Your task to perform on an android device: turn on the 24-hour format for clock Image 0: 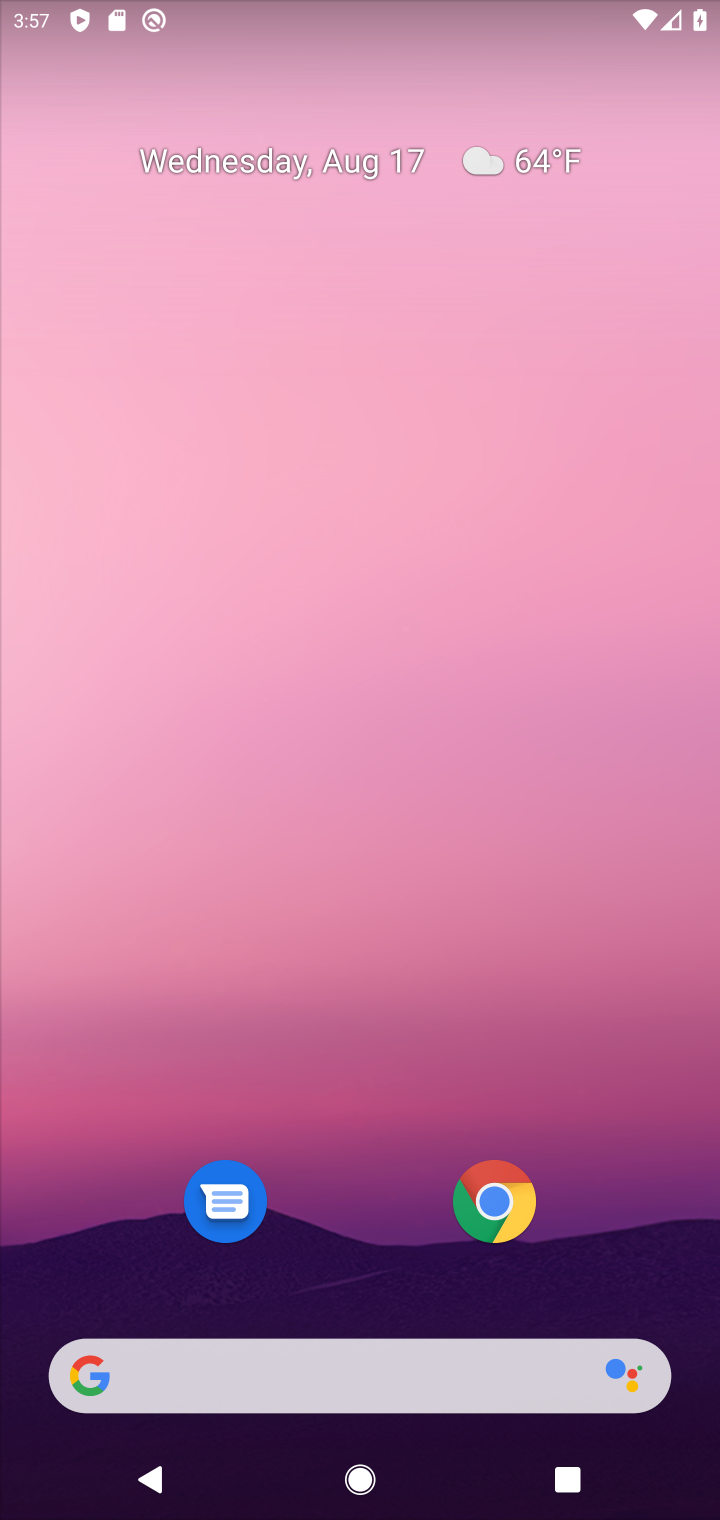
Step 0: drag from (330, 1284) to (377, 3)
Your task to perform on an android device: turn on the 24-hour format for clock Image 1: 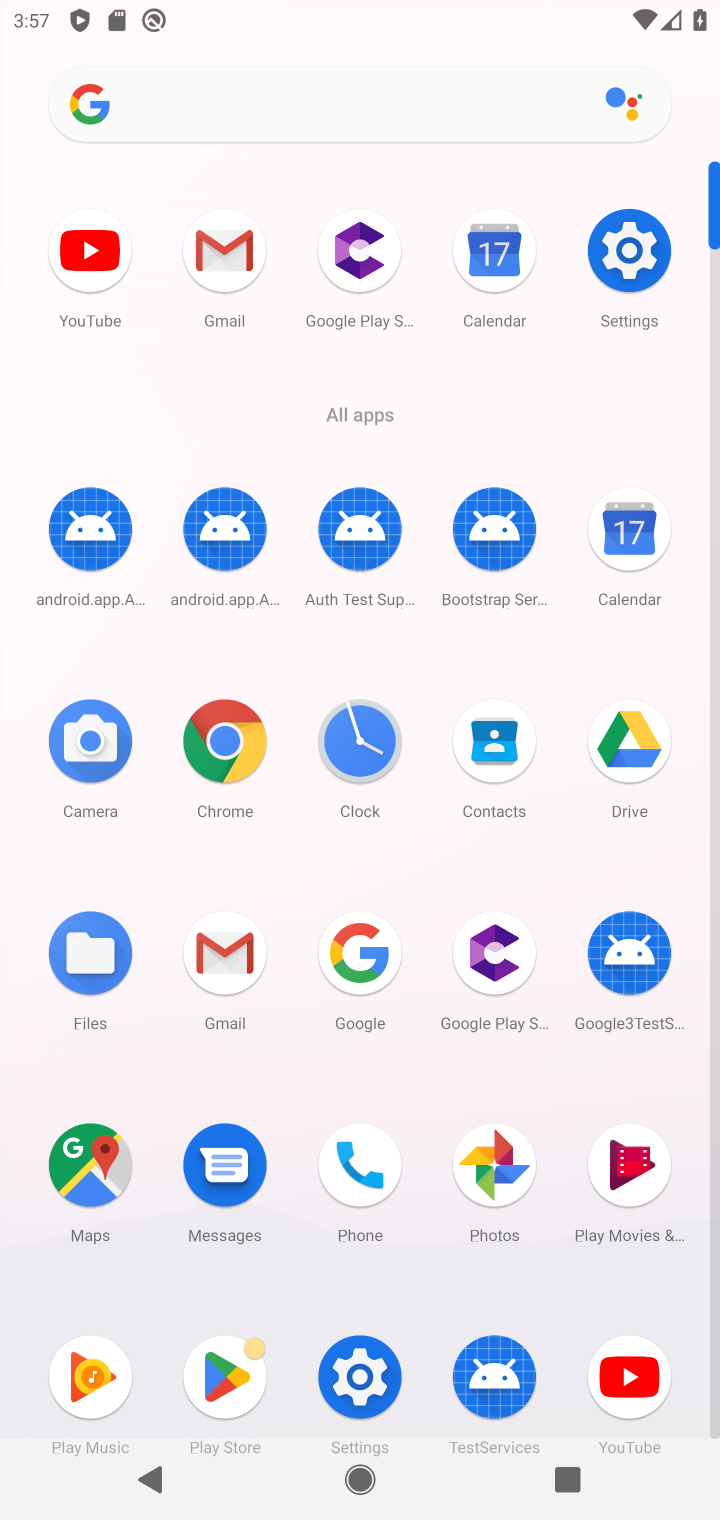
Step 1: click (363, 1373)
Your task to perform on an android device: turn on the 24-hour format for clock Image 2: 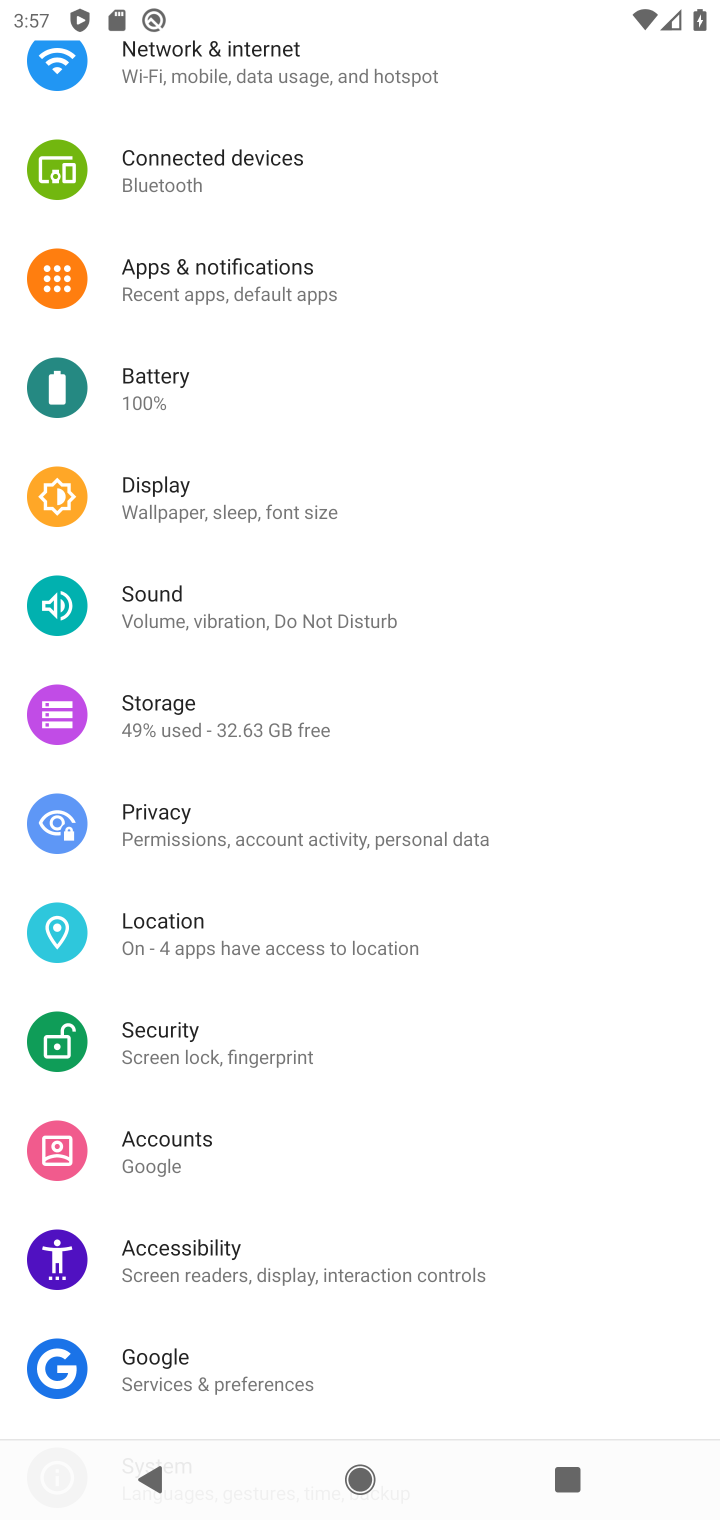
Step 2: drag from (257, 1176) to (263, 678)
Your task to perform on an android device: turn on the 24-hour format for clock Image 3: 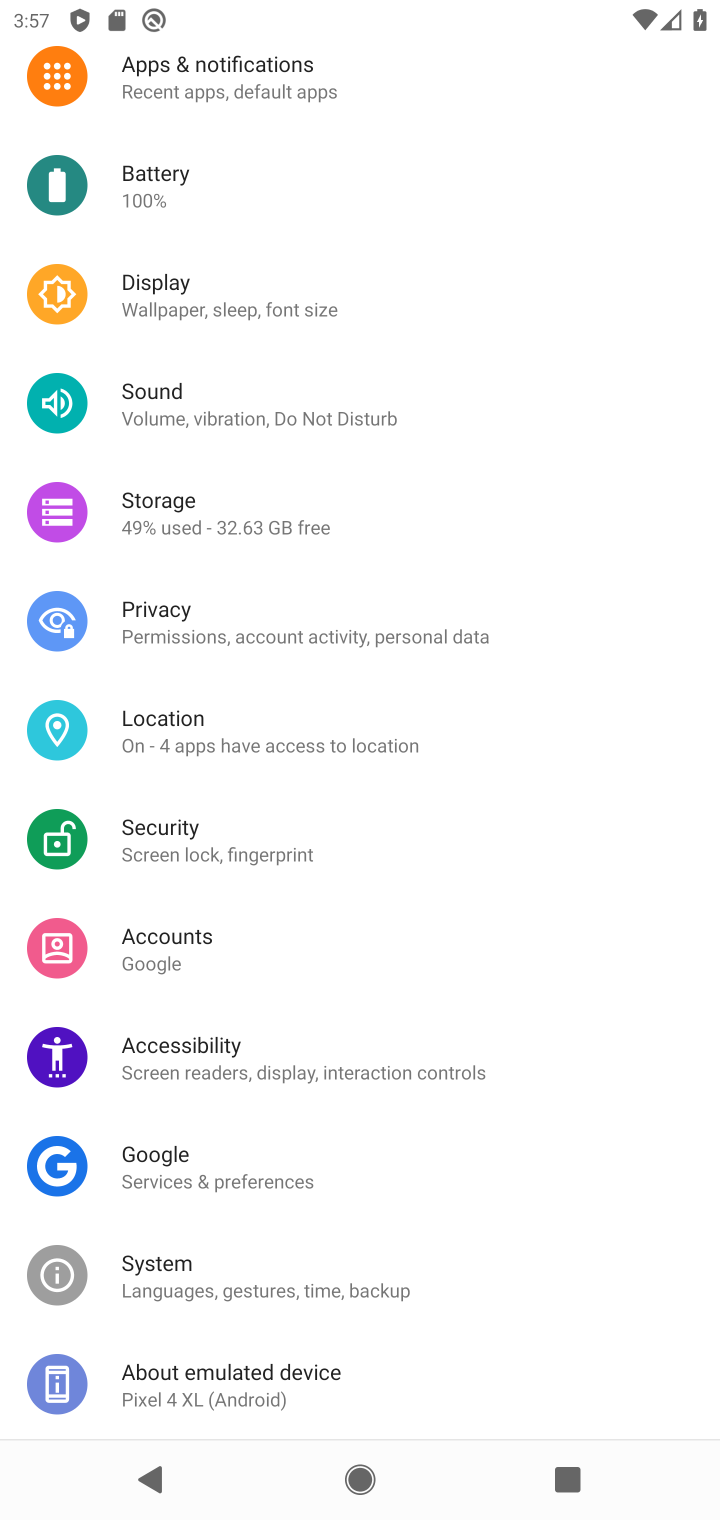
Step 3: click (218, 1279)
Your task to perform on an android device: turn on the 24-hour format for clock Image 4: 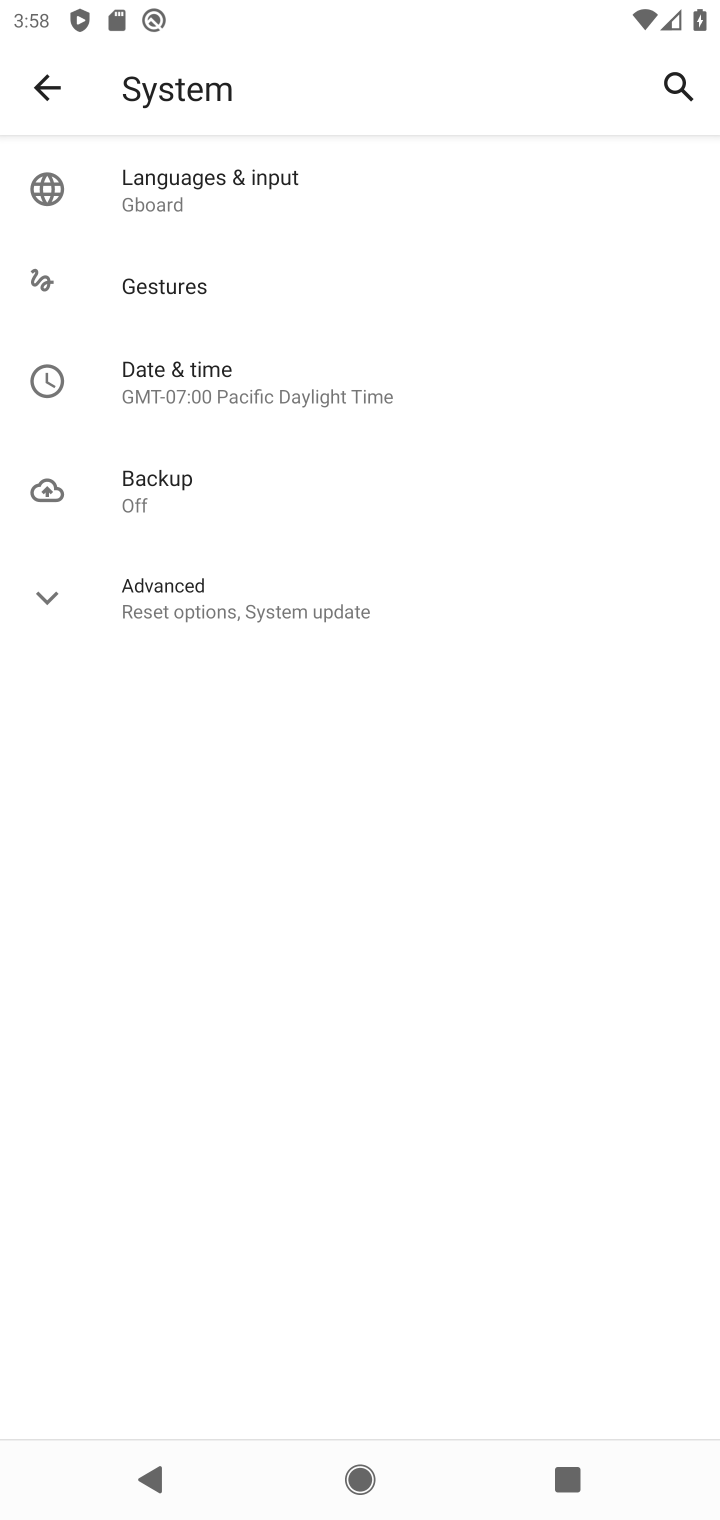
Step 4: click (200, 393)
Your task to perform on an android device: turn on the 24-hour format for clock Image 5: 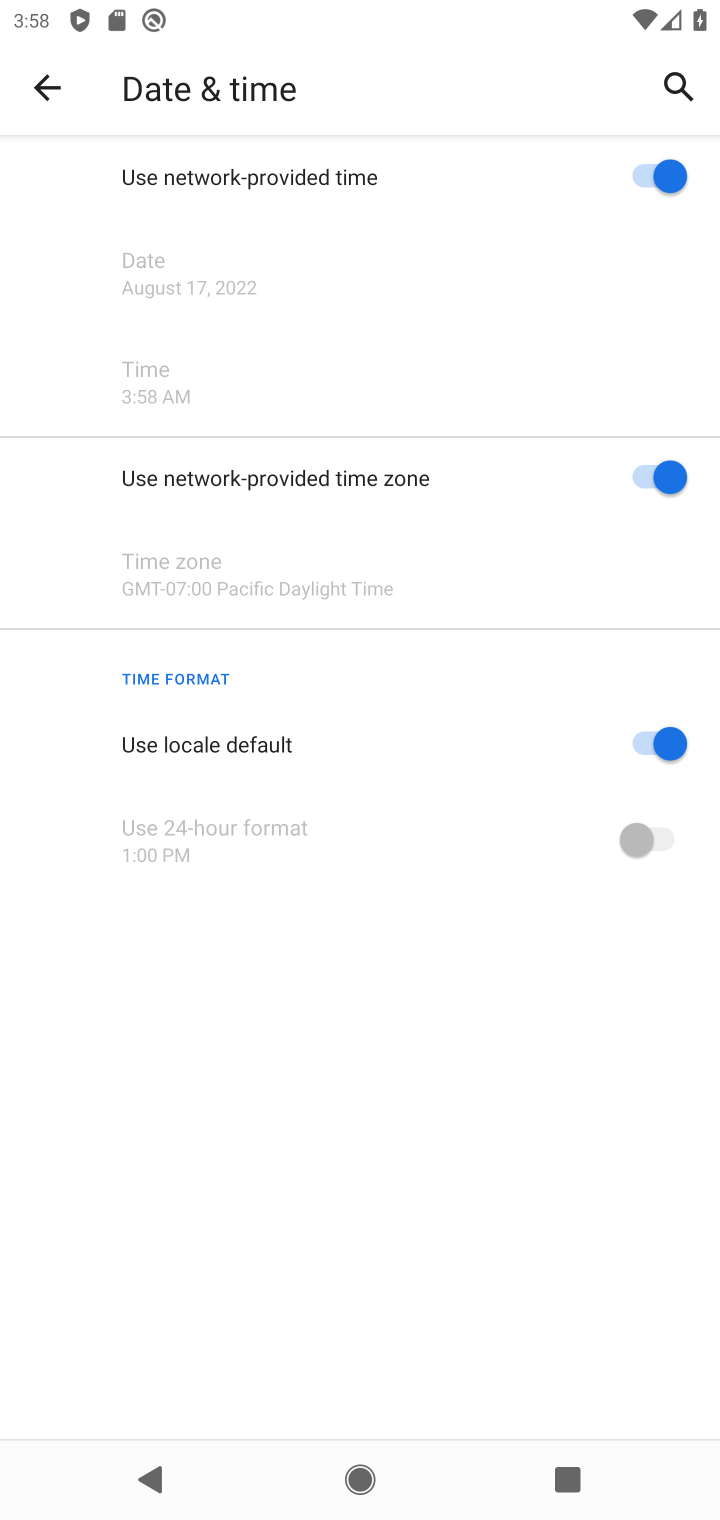
Step 5: click (599, 728)
Your task to perform on an android device: turn on the 24-hour format for clock Image 6: 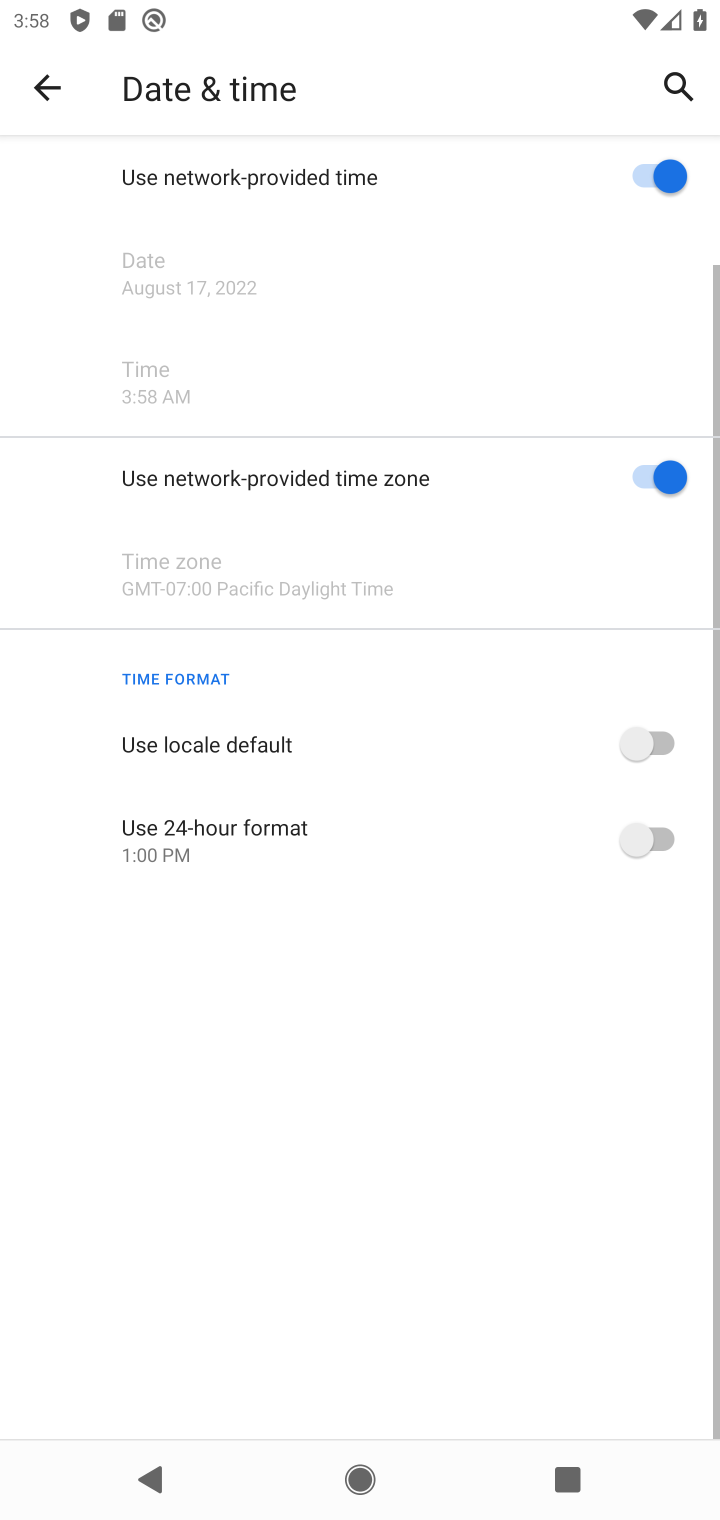
Step 6: click (675, 823)
Your task to perform on an android device: turn on the 24-hour format for clock Image 7: 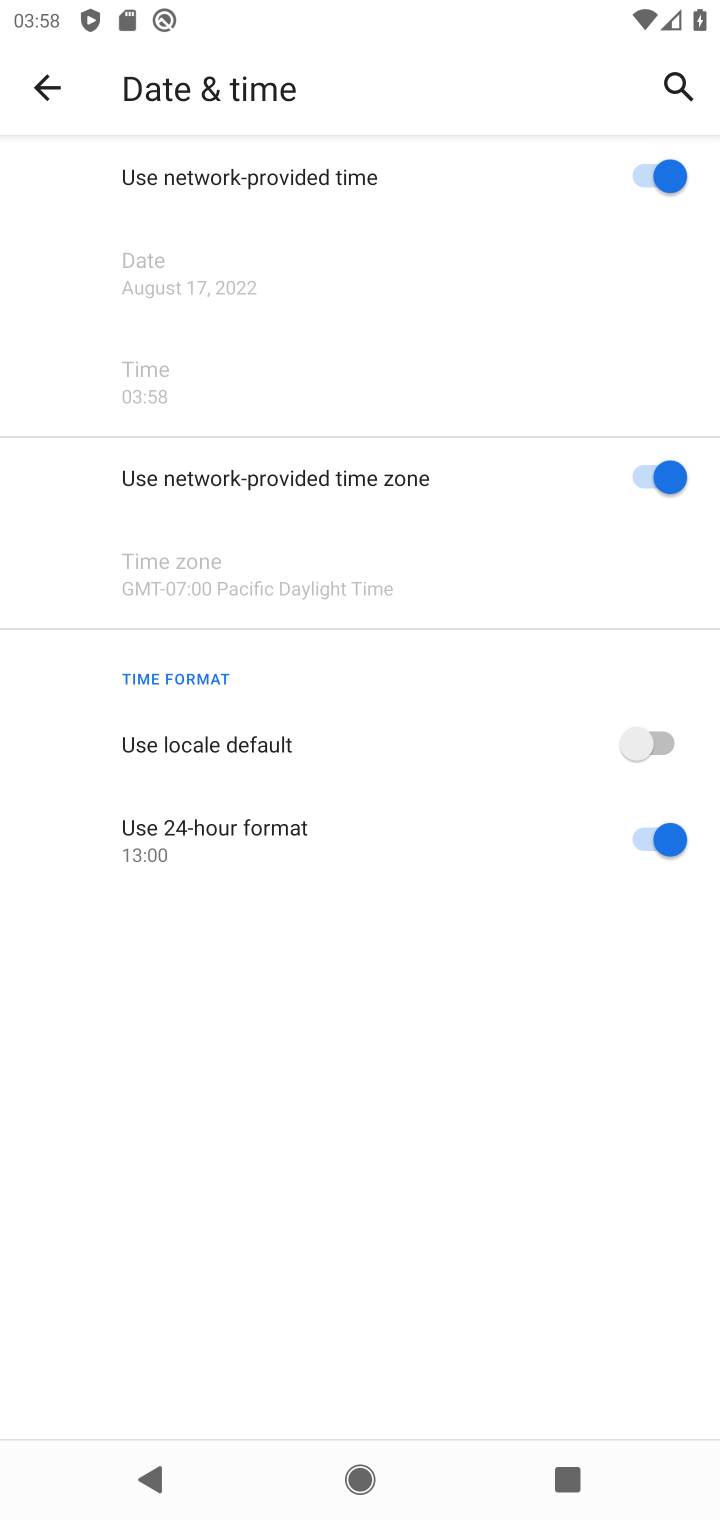
Step 7: task complete